Your task to perform on an android device: Go to ESPN.com Image 0: 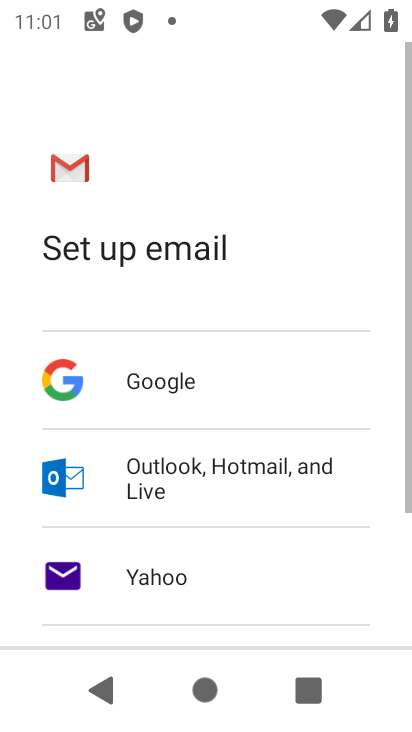
Step 0: press home button
Your task to perform on an android device: Go to ESPN.com Image 1: 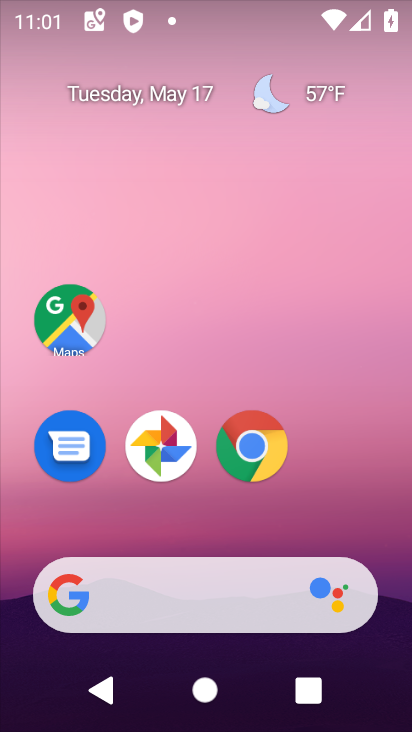
Step 1: drag from (186, 576) to (168, 82)
Your task to perform on an android device: Go to ESPN.com Image 2: 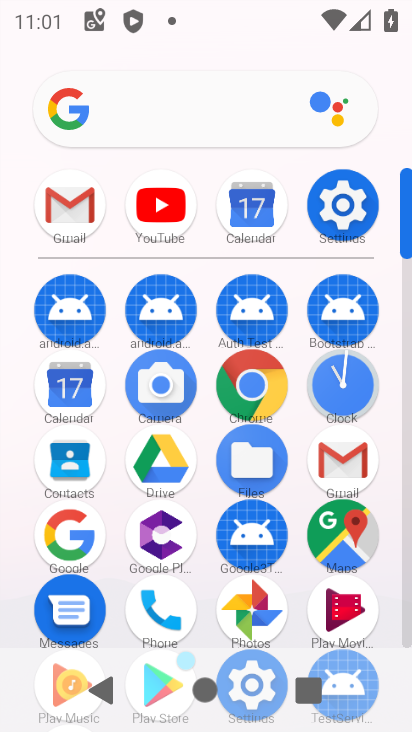
Step 2: click (244, 391)
Your task to perform on an android device: Go to ESPN.com Image 3: 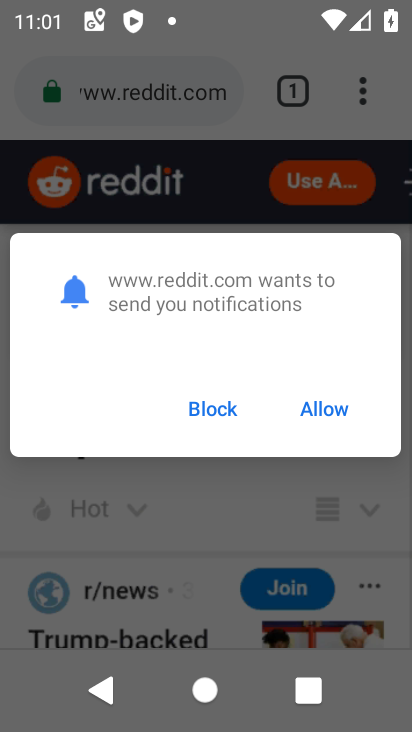
Step 3: click (307, 412)
Your task to perform on an android device: Go to ESPN.com Image 4: 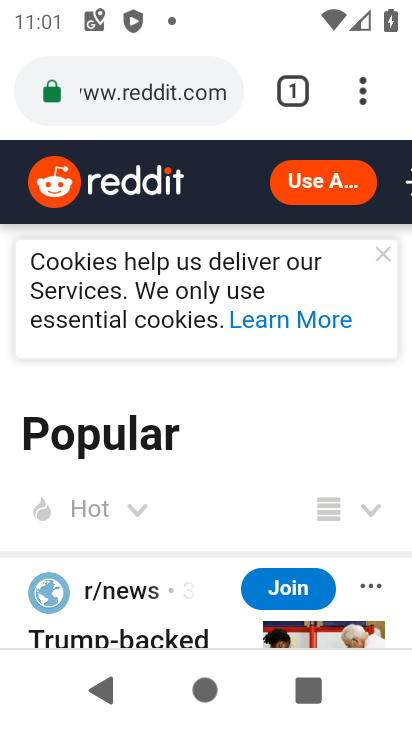
Step 4: click (160, 109)
Your task to perform on an android device: Go to ESPN.com Image 5: 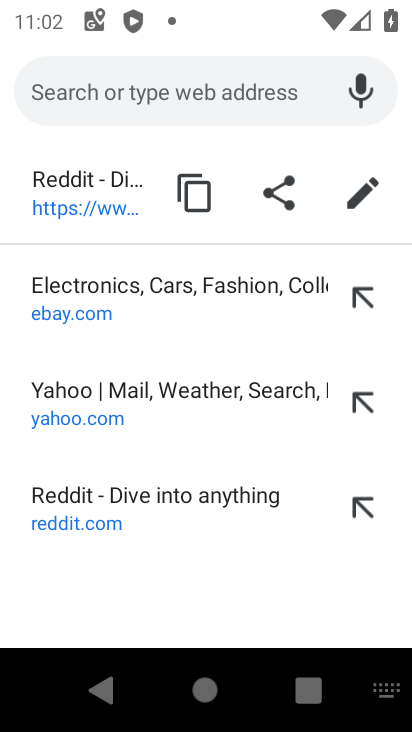
Step 5: type "espn.com"
Your task to perform on an android device: Go to ESPN.com Image 6: 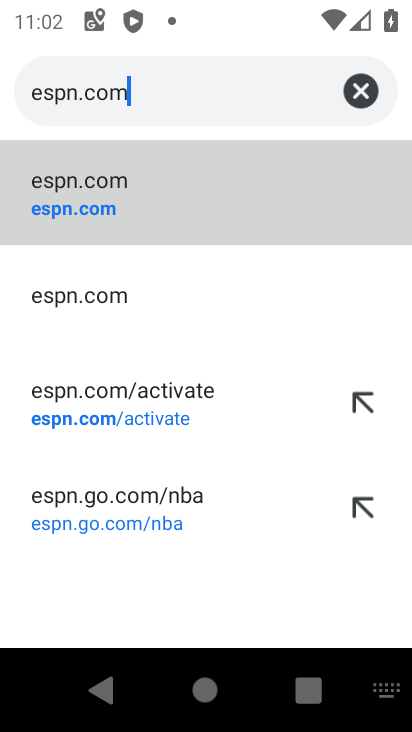
Step 6: click (283, 235)
Your task to perform on an android device: Go to ESPN.com Image 7: 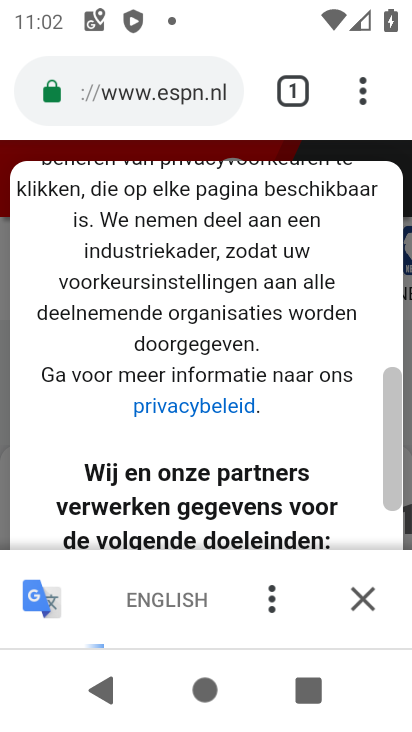
Step 7: task complete